Your task to perform on an android device: toggle improve location accuracy Image 0: 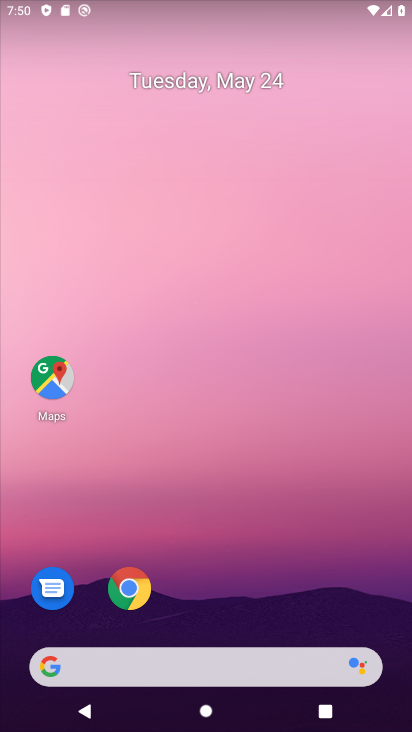
Step 0: drag from (208, 623) to (215, 58)
Your task to perform on an android device: toggle improve location accuracy Image 1: 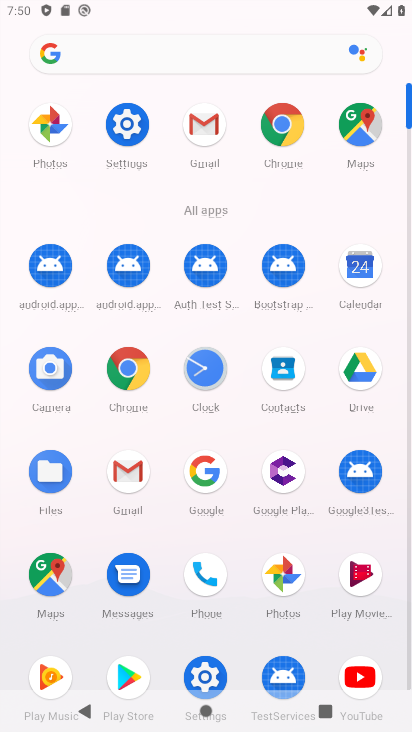
Step 1: click (116, 114)
Your task to perform on an android device: toggle improve location accuracy Image 2: 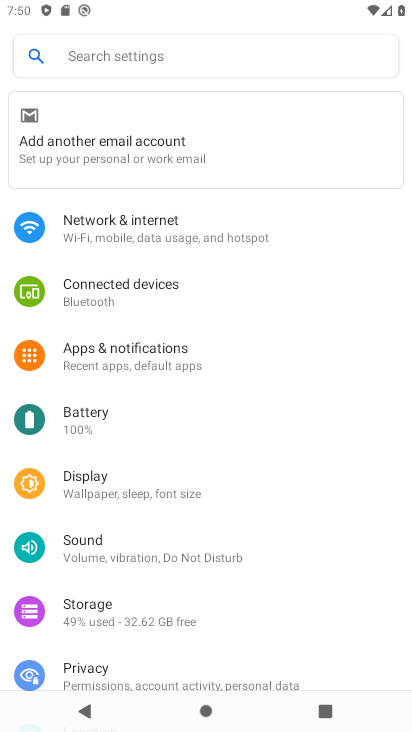
Step 2: drag from (204, 560) to (213, 175)
Your task to perform on an android device: toggle improve location accuracy Image 3: 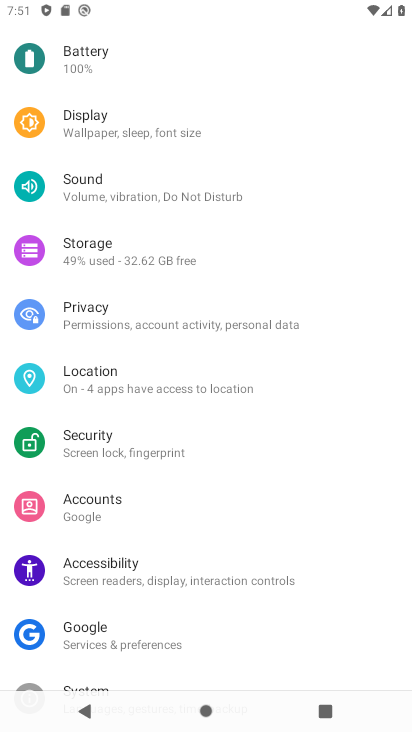
Step 3: click (124, 371)
Your task to perform on an android device: toggle improve location accuracy Image 4: 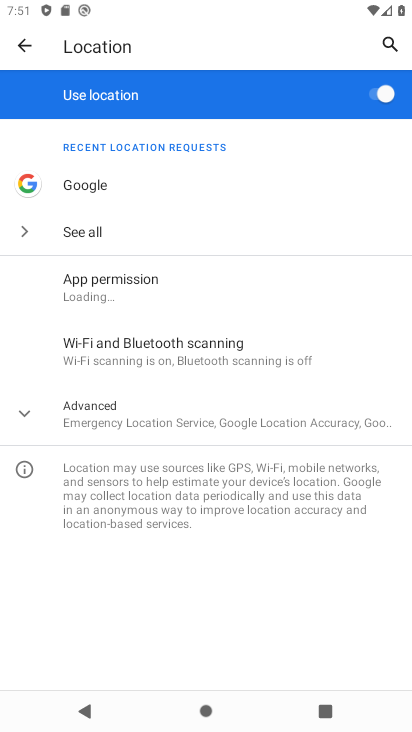
Step 4: drag from (213, 526) to (304, 275)
Your task to perform on an android device: toggle improve location accuracy Image 5: 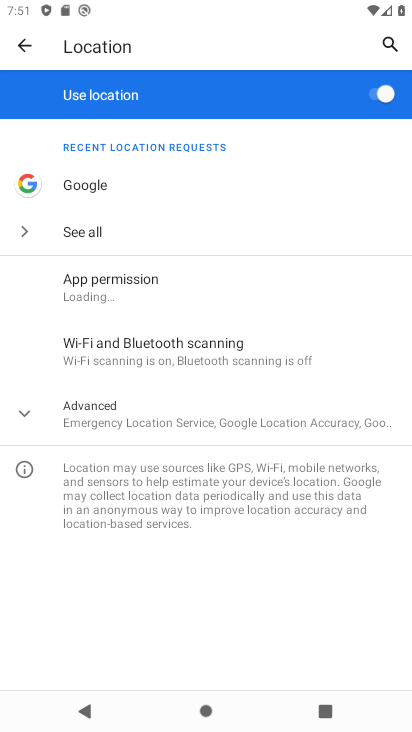
Step 5: click (185, 425)
Your task to perform on an android device: toggle improve location accuracy Image 6: 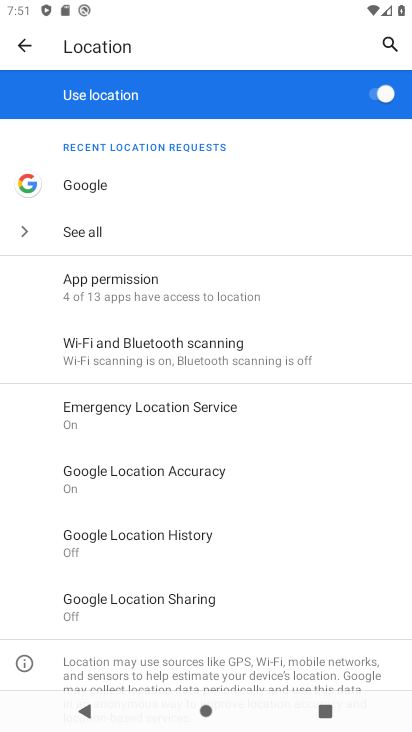
Step 6: click (187, 475)
Your task to perform on an android device: toggle improve location accuracy Image 7: 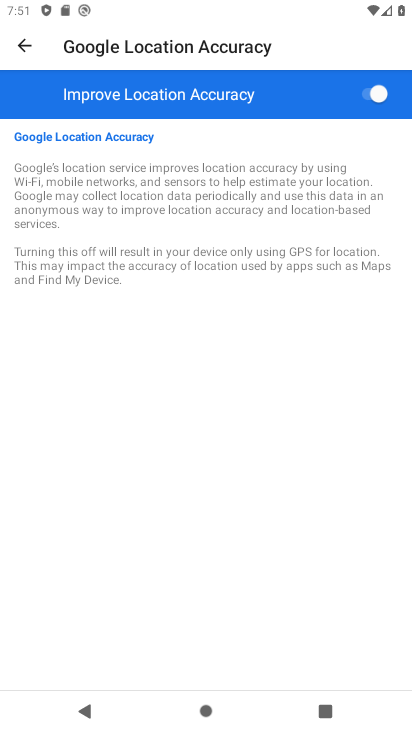
Step 7: drag from (200, 472) to (301, 187)
Your task to perform on an android device: toggle improve location accuracy Image 8: 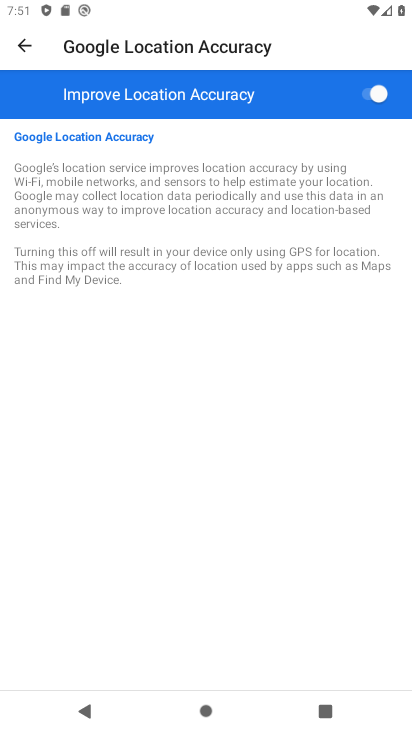
Step 8: click (356, 100)
Your task to perform on an android device: toggle improve location accuracy Image 9: 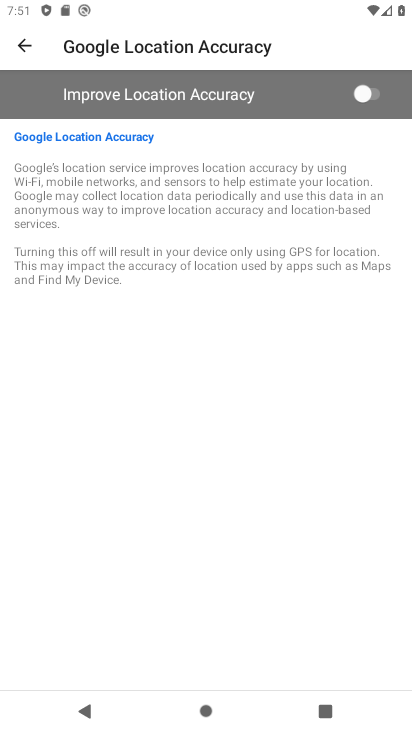
Step 9: task complete